Your task to perform on an android device: change notifications settings Image 0: 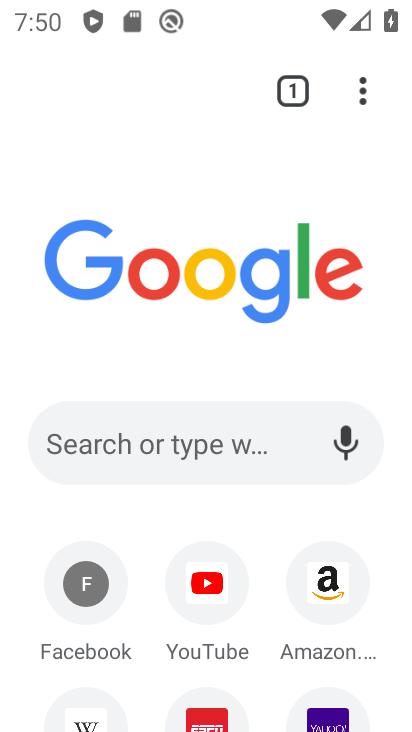
Step 0: press back button
Your task to perform on an android device: change notifications settings Image 1: 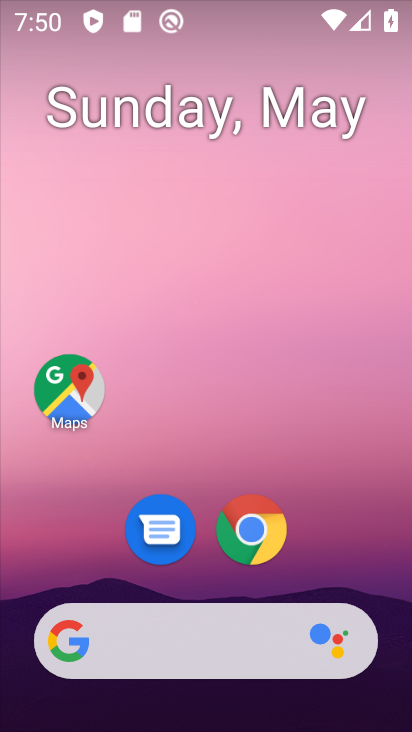
Step 1: drag from (178, 524) to (259, 84)
Your task to perform on an android device: change notifications settings Image 2: 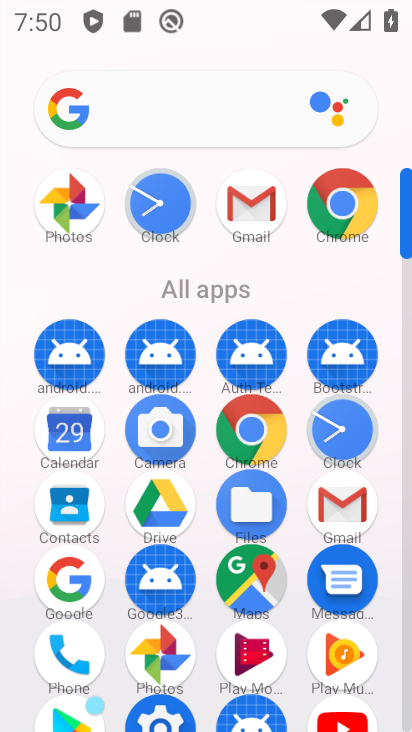
Step 2: click (169, 715)
Your task to perform on an android device: change notifications settings Image 3: 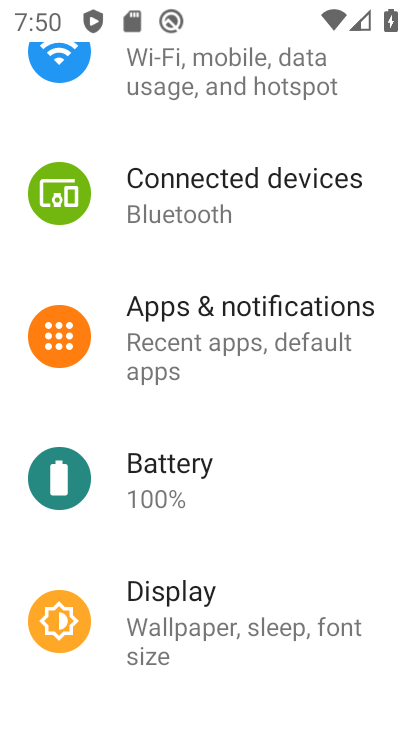
Step 3: click (230, 329)
Your task to perform on an android device: change notifications settings Image 4: 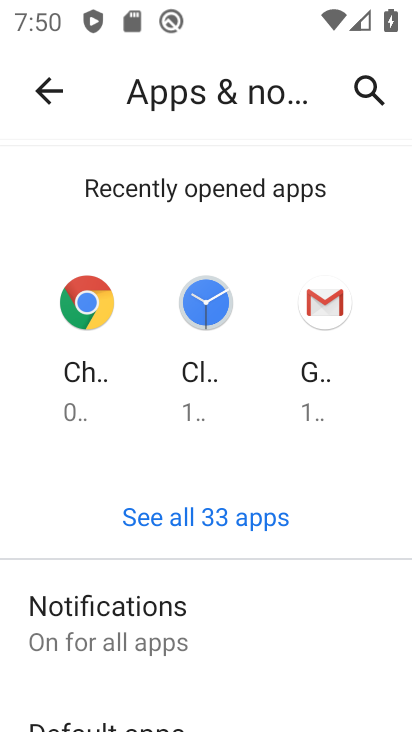
Step 4: drag from (184, 600) to (231, 199)
Your task to perform on an android device: change notifications settings Image 5: 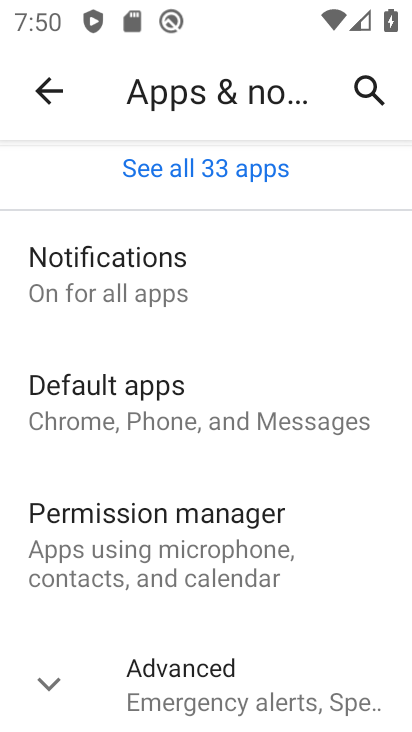
Step 5: click (149, 272)
Your task to perform on an android device: change notifications settings Image 6: 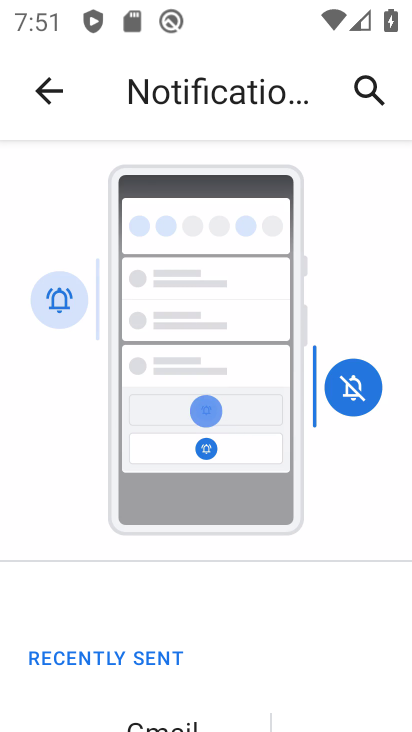
Step 6: drag from (170, 580) to (256, 98)
Your task to perform on an android device: change notifications settings Image 7: 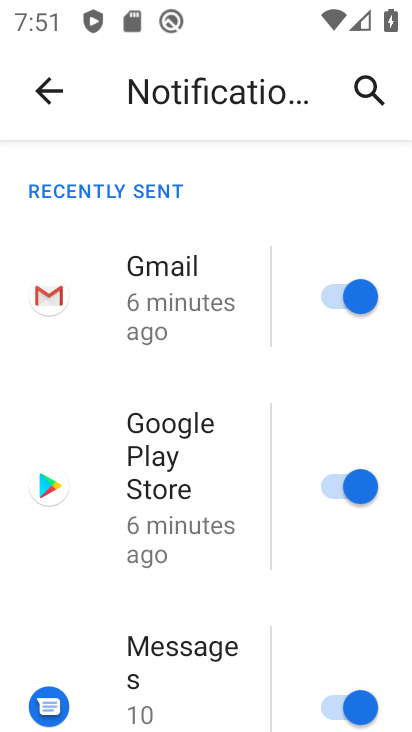
Step 7: drag from (168, 571) to (250, 98)
Your task to perform on an android device: change notifications settings Image 8: 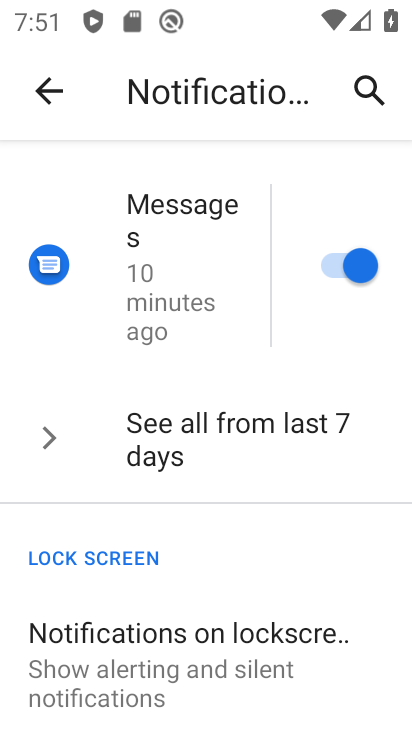
Step 8: drag from (229, 621) to (282, 326)
Your task to perform on an android device: change notifications settings Image 9: 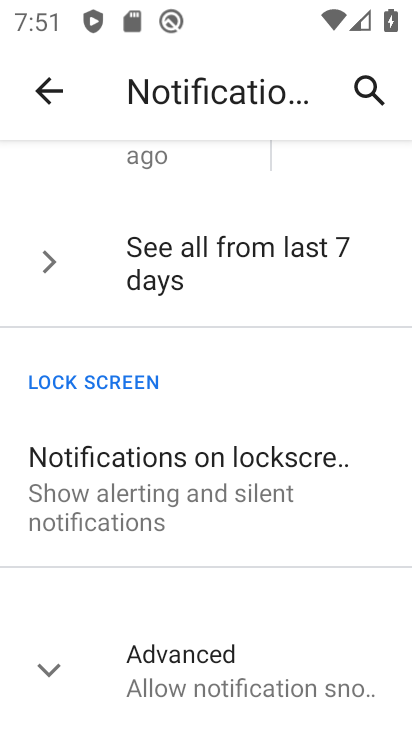
Step 9: click (176, 655)
Your task to perform on an android device: change notifications settings Image 10: 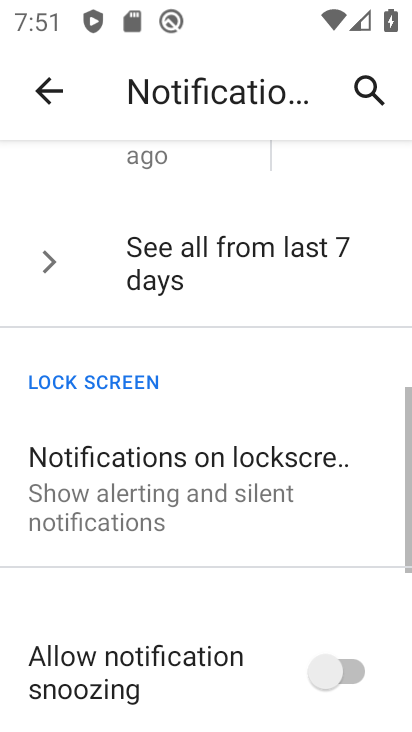
Step 10: drag from (192, 631) to (244, 290)
Your task to perform on an android device: change notifications settings Image 11: 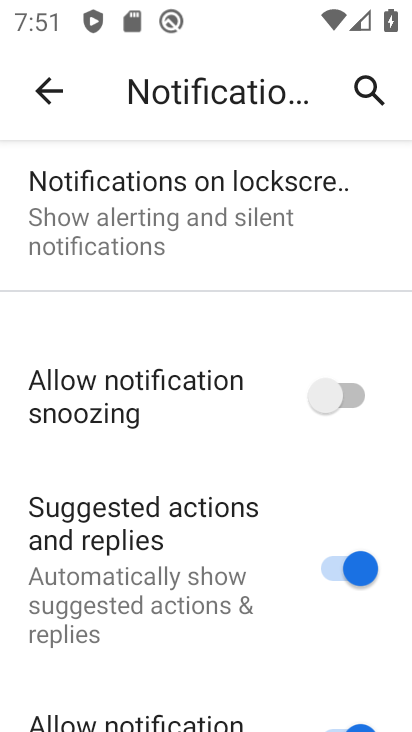
Step 11: click (324, 396)
Your task to perform on an android device: change notifications settings Image 12: 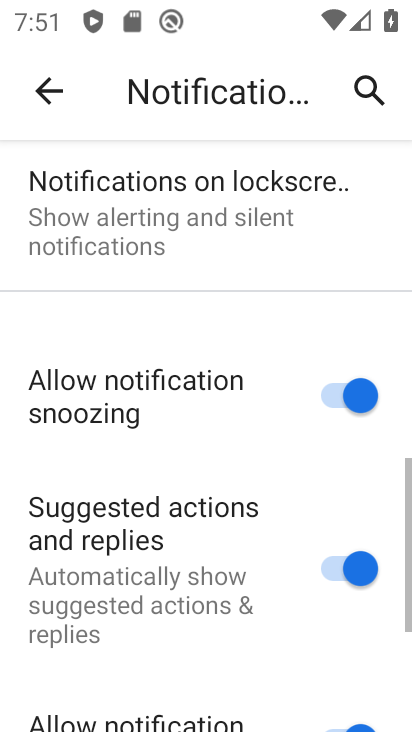
Step 12: task complete